Your task to perform on an android device: Open the calendar app, open the side menu, and click the "Day" option Image 0: 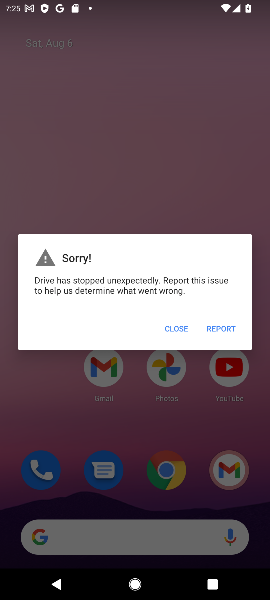
Step 0: click (235, 157)
Your task to perform on an android device: Open the calendar app, open the side menu, and click the "Day" option Image 1: 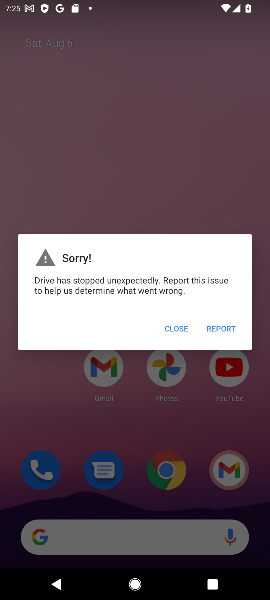
Step 1: click (174, 327)
Your task to perform on an android device: Open the calendar app, open the side menu, and click the "Day" option Image 2: 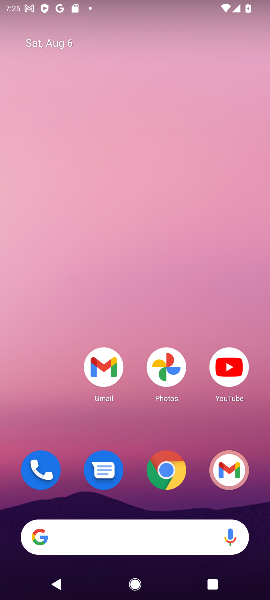
Step 2: drag from (81, 533) to (175, 54)
Your task to perform on an android device: Open the calendar app, open the side menu, and click the "Day" option Image 3: 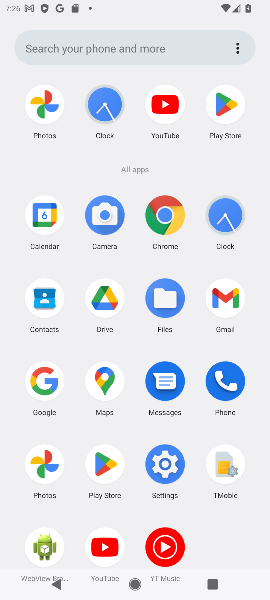
Step 3: click (49, 216)
Your task to perform on an android device: Open the calendar app, open the side menu, and click the "Day" option Image 4: 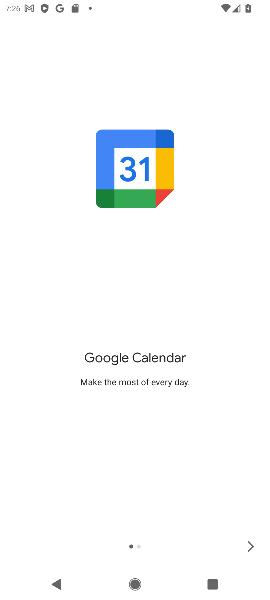
Step 4: click (253, 552)
Your task to perform on an android device: Open the calendar app, open the side menu, and click the "Day" option Image 5: 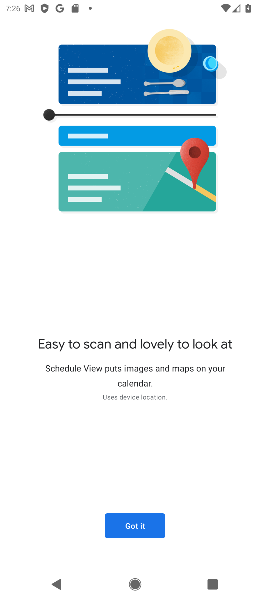
Step 5: click (137, 519)
Your task to perform on an android device: Open the calendar app, open the side menu, and click the "Day" option Image 6: 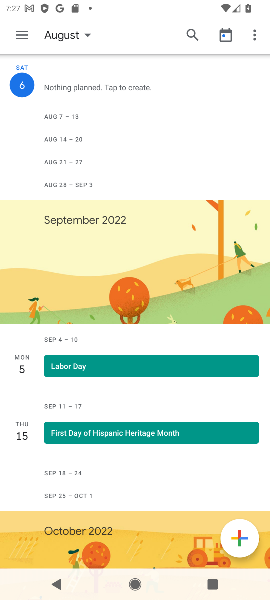
Step 6: click (21, 32)
Your task to perform on an android device: Open the calendar app, open the side menu, and click the "Day" option Image 7: 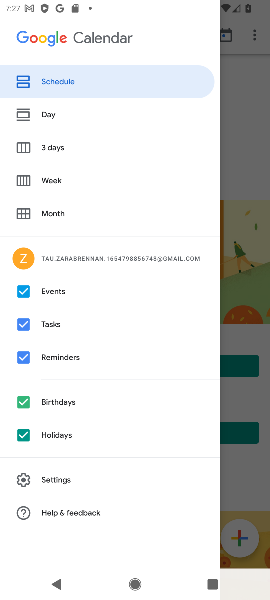
Step 7: click (59, 117)
Your task to perform on an android device: Open the calendar app, open the side menu, and click the "Day" option Image 8: 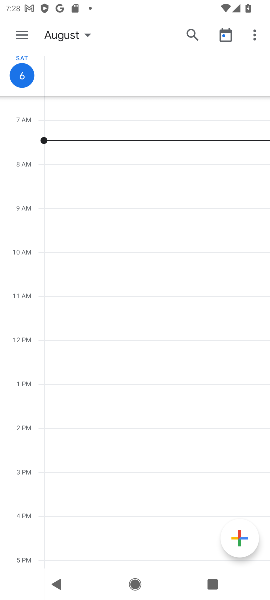
Step 8: task complete